Your task to perform on an android device: check google app version Image 0: 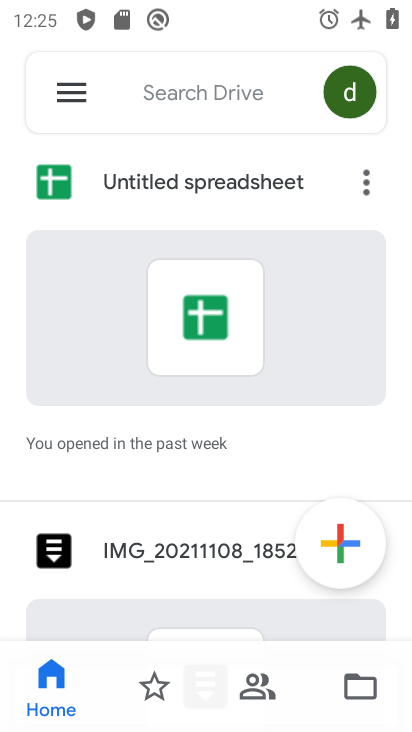
Step 0: press home button
Your task to perform on an android device: check google app version Image 1: 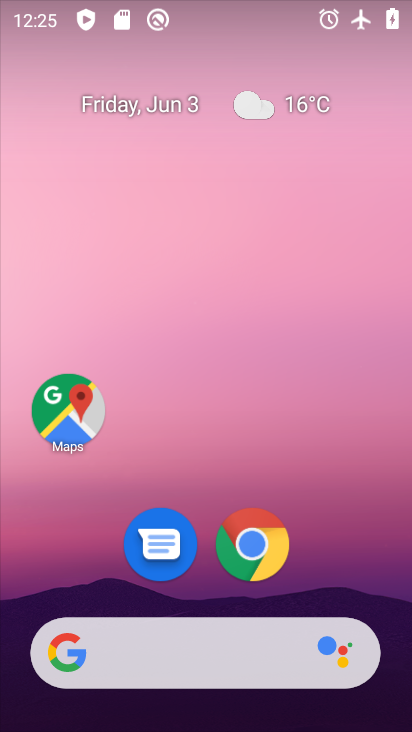
Step 1: drag from (349, 538) to (339, 140)
Your task to perform on an android device: check google app version Image 2: 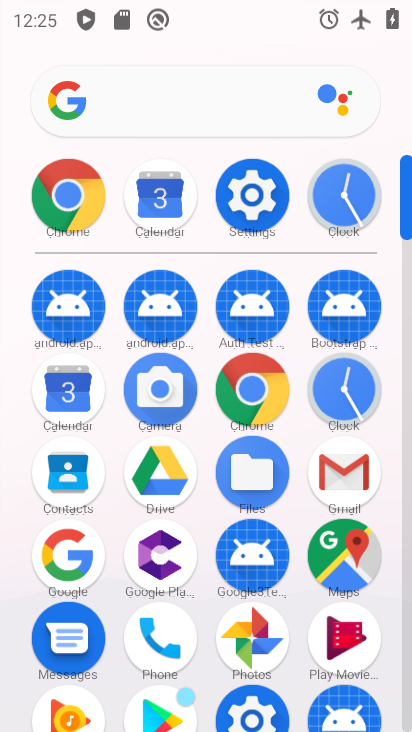
Step 2: drag from (197, 571) to (223, 403)
Your task to perform on an android device: check google app version Image 3: 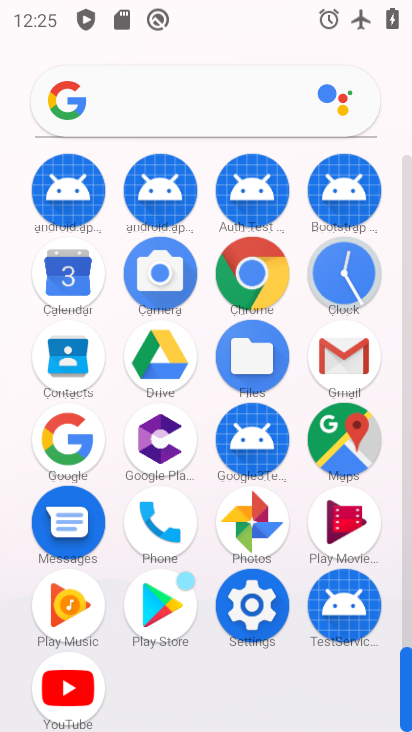
Step 3: click (82, 457)
Your task to perform on an android device: check google app version Image 4: 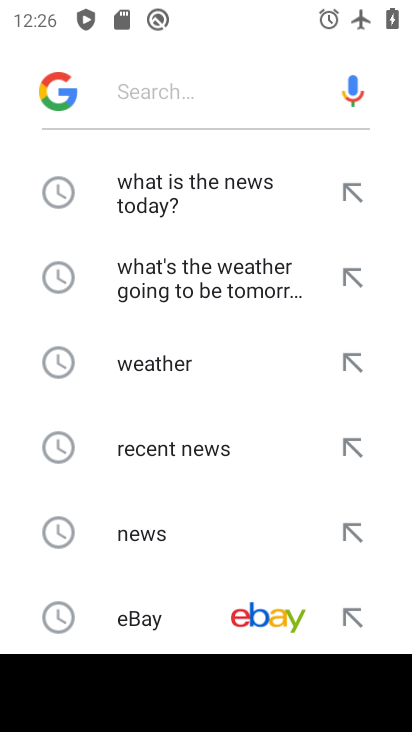
Step 4: press back button
Your task to perform on an android device: check google app version Image 5: 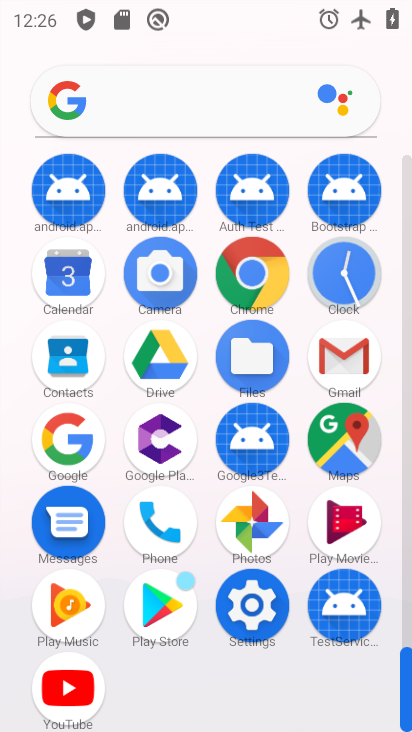
Step 5: click (71, 443)
Your task to perform on an android device: check google app version Image 6: 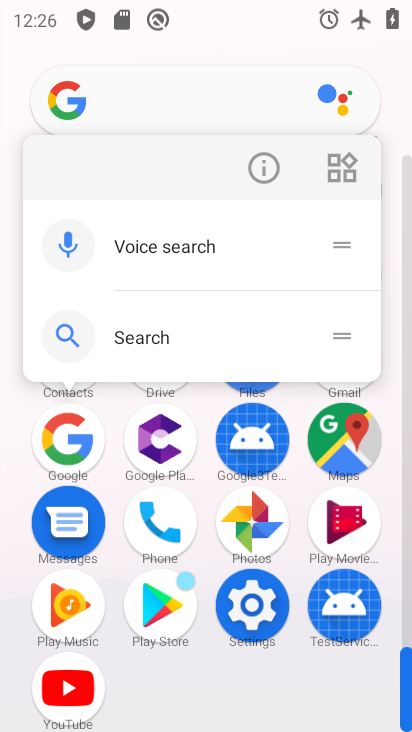
Step 6: click (87, 460)
Your task to perform on an android device: check google app version Image 7: 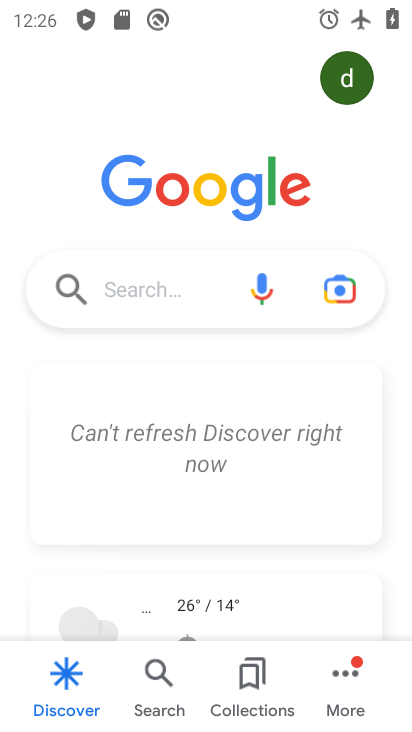
Step 7: click (349, 686)
Your task to perform on an android device: check google app version Image 8: 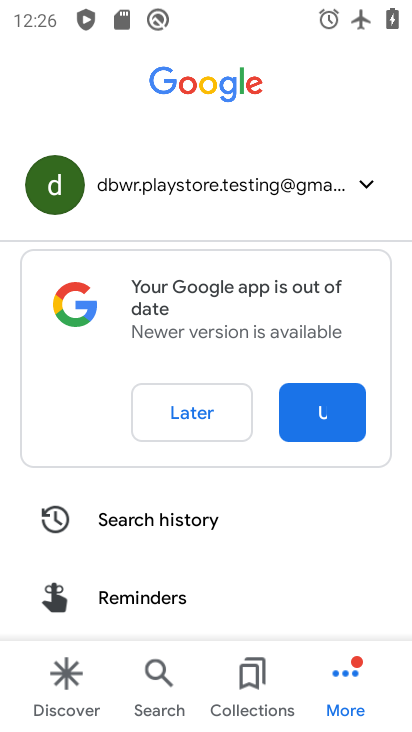
Step 8: drag from (223, 578) to (236, 256)
Your task to perform on an android device: check google app version Image 9: 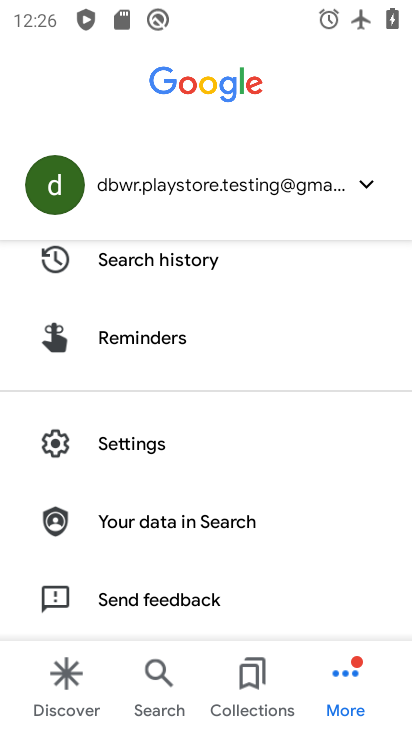
Step 9: click (175, 439)
Your task to perform on an android device: check google app version Image 10: 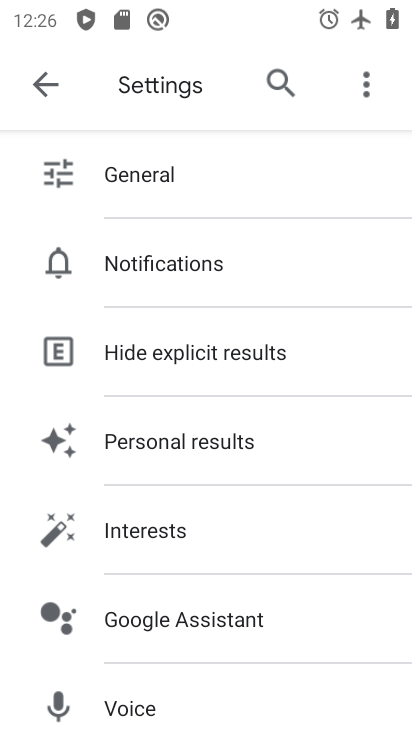
Step 10: drag from (170, 598) to (235, 276)
Your task to perform on an android device: check google app version Image 11: 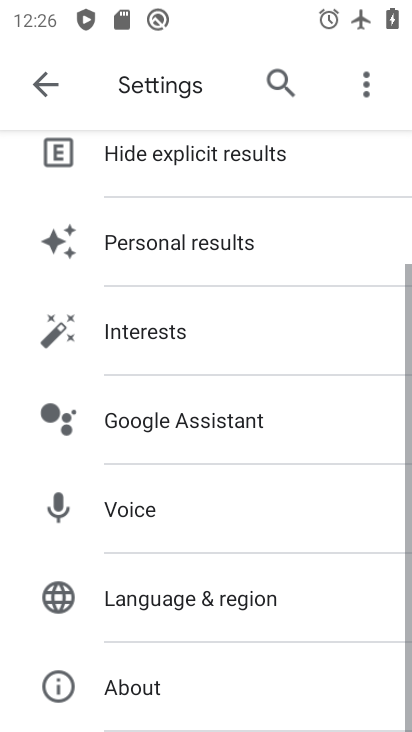
Step 11: click (183, 685)
Your task to perform on an android device: check google app version Image 12: 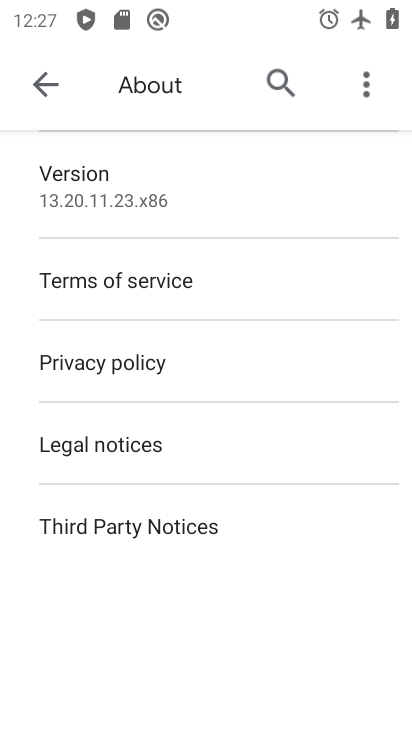
Step 12: task complete